Your task to perform on an android device: turn off location Image 0: 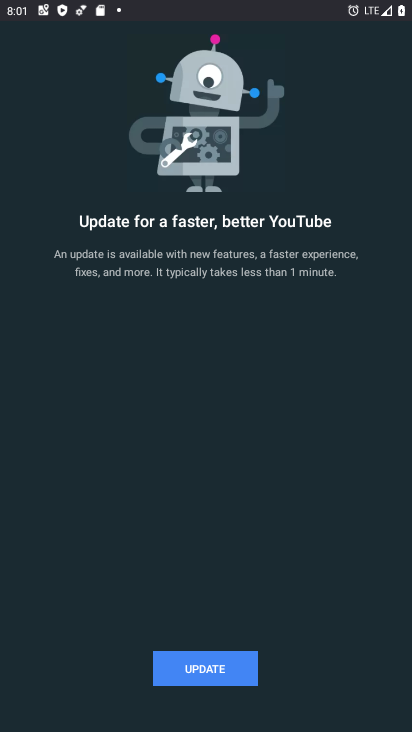
Step 0: press home button
Your task to perform on an android device: turn off location Image 1: 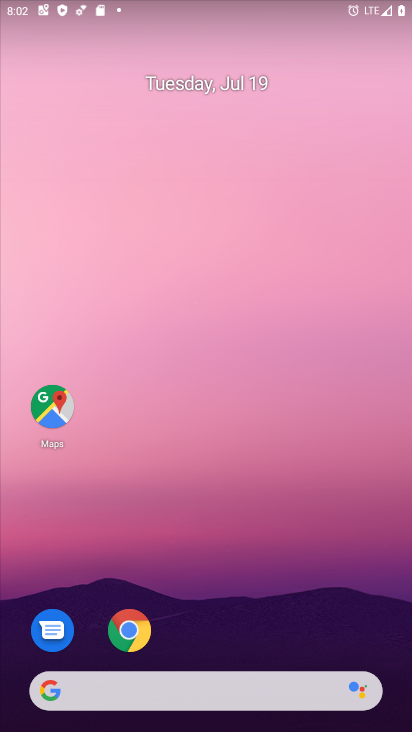
Step 1: drag from (282, 611) to (299, 89)
Your task to perform on an android device: turn off location Image 2: 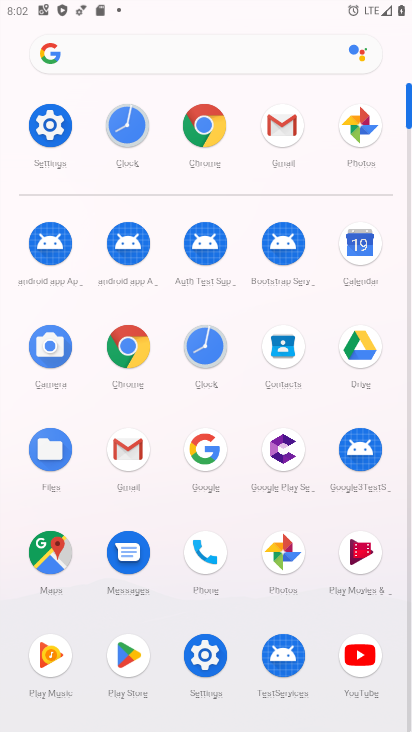
Step 2: click (47, 120)
Your task to perform on an android device: turn off location Image 3: 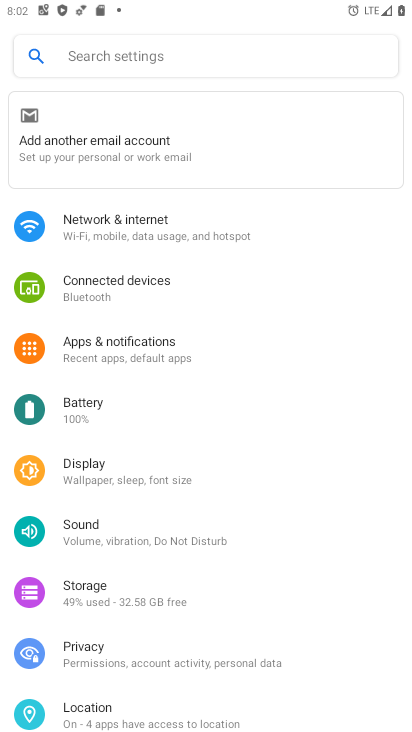
Step 3: click (93, 699)
Your task to perform on an android device: turn off location Image 4: 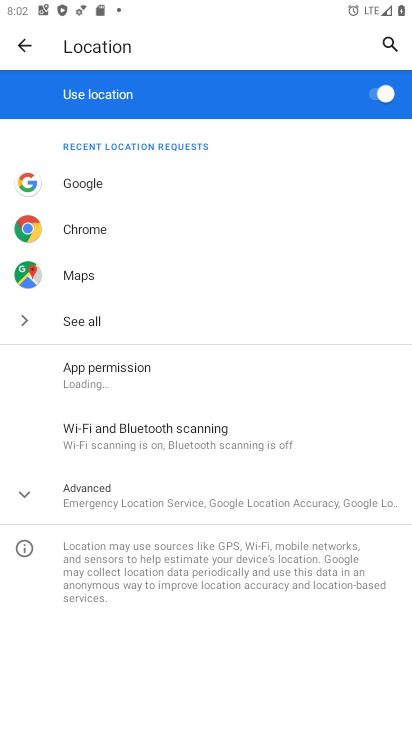
Step 4: click (384, 91)
Your task to perform on an android device: turn off location Image 5: 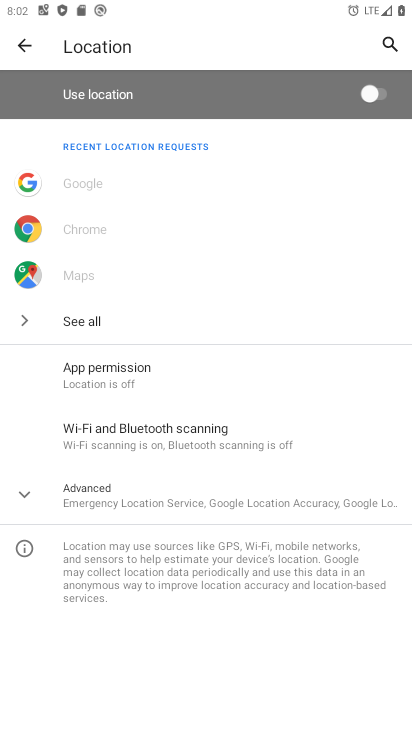
Step 5: task complete